Your task to perform on an android device: search for starred emails in the gmail app Image 0: 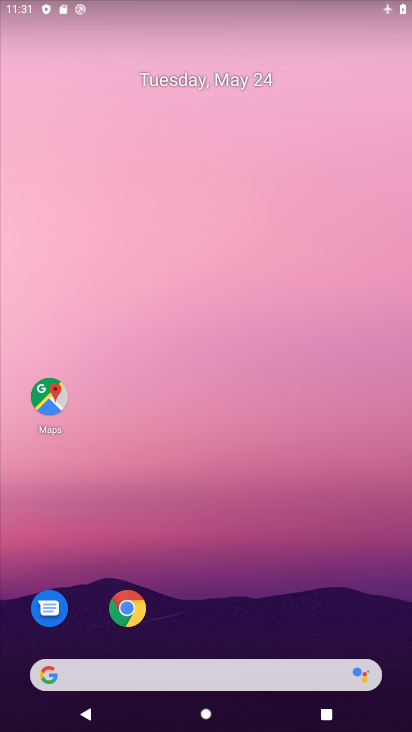
Step 0: drag from (269, 560) to (194, 91)
Your task to perform on an android device: search for starred emails in the gmail app Image 1: 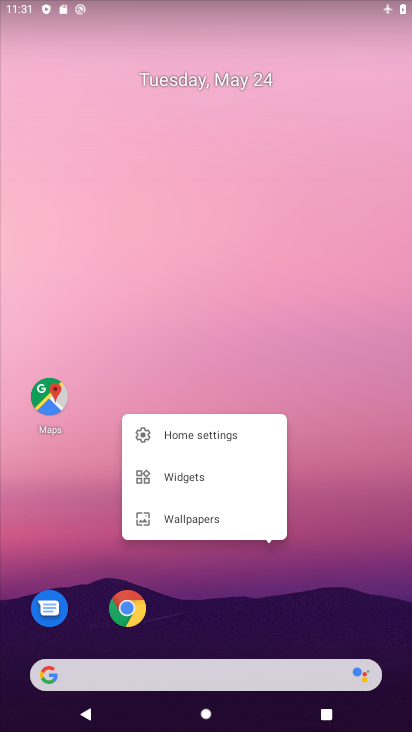
Step 1: click (311, 590)
Your task to perform on an android device: search for starred emails in the gmail app Image 2: 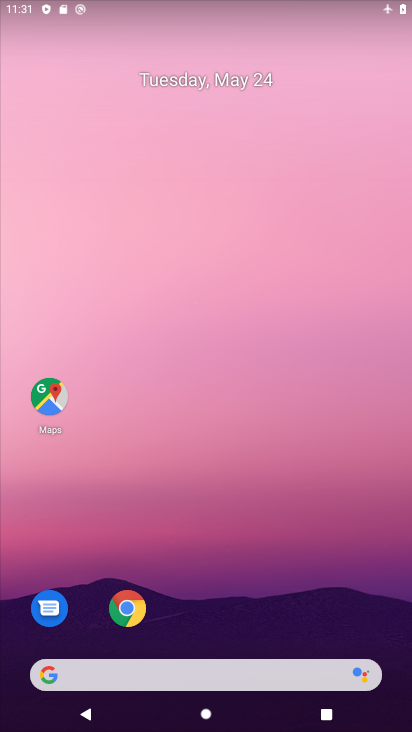
Step 2: drag from (311, 590) to (272, 158)
Your task to perform on an android device: search for starred emails in the gmail app Image 3: 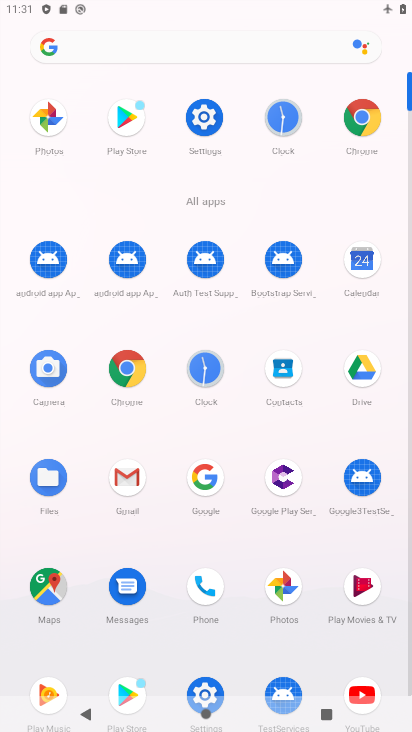
Step 3: click (128, 471)
Your task to perform on an android device: search for starred emails in the gmail app Image 4: 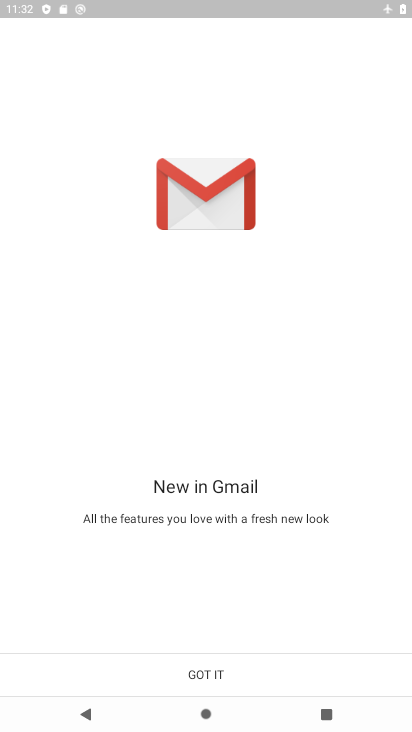
Step 4: click (181, 664)
Your task to perform on an android device: search for starred emails in the gmail app Image 5: 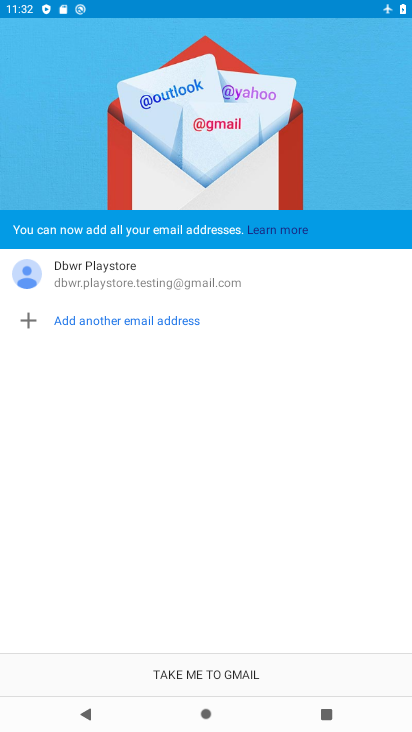
Step 5: click (181, 664)
Your task to perform on an android device: search for starred emails in the gmail app Image 6: 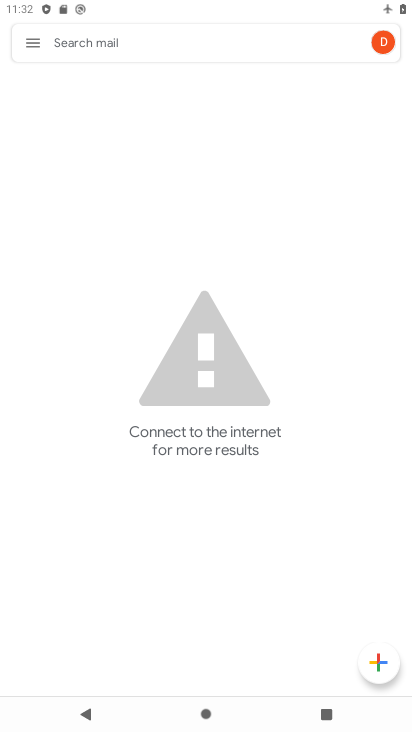
Step 6: task complete